Your task to perform on an android device: Open settings Image 0: 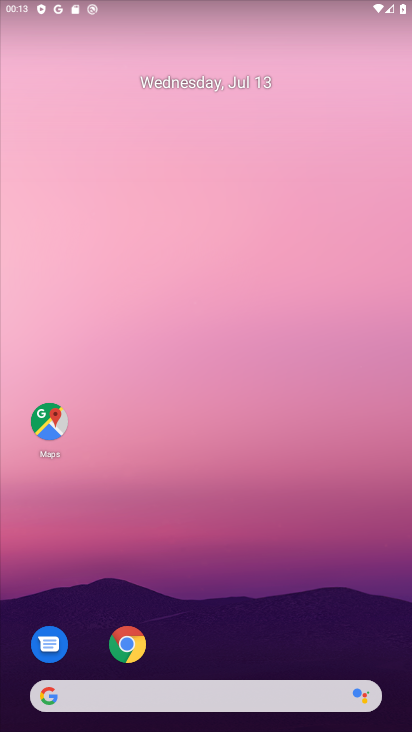
Step 0: drag from (297, 657) to (299, 161)
Your task to perform on an android device: Open settings Image 1: 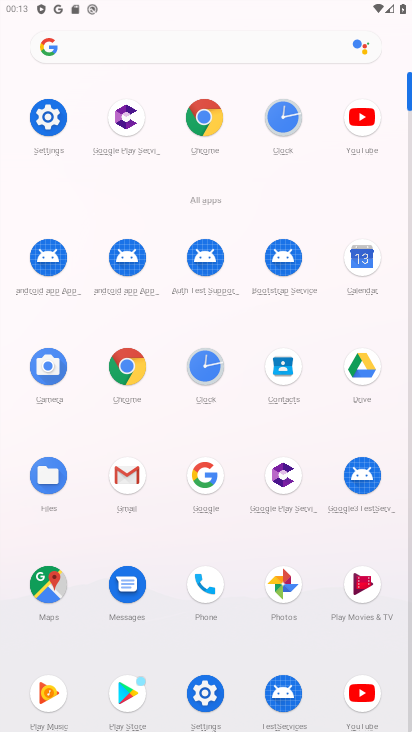
Step 1: click (210, 706)
Your task to perform on an android device: Open settings Image 2: 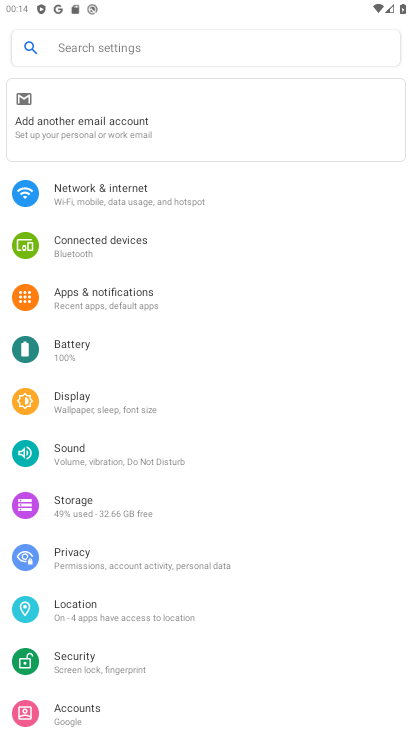
Step 2: task complete